Your task to perform on an android device: change text size in settings app Image 0: 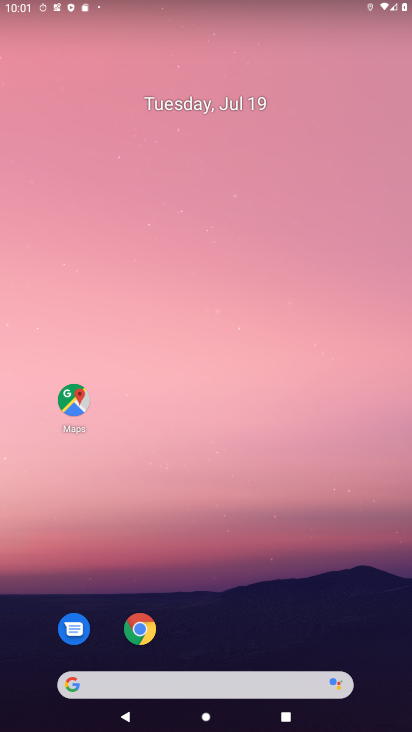
Step 0: drag from (233, 627) to (234, 7)
Your task to perform on an android device: change text size in settings app Image 1: 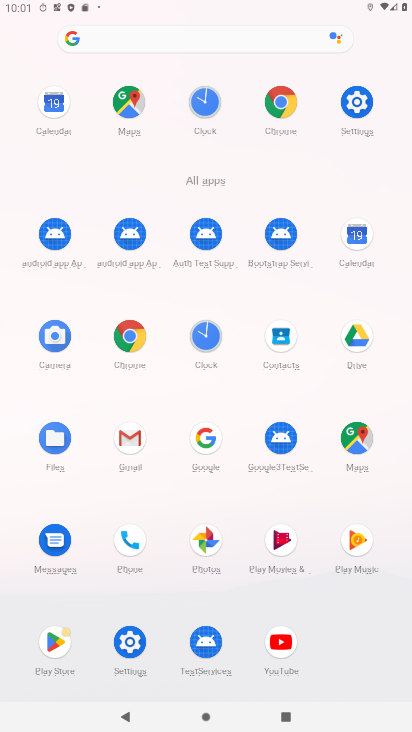
Step 1: click (133, 649)
Your task to perform on an android device: change text size in settings app Image 2: 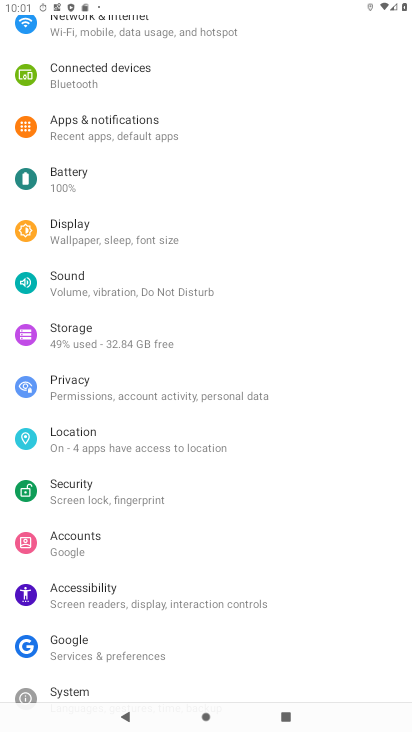
Step 2: click (87, 237)
Your task to perform on an android device: change text size in settings app Image 3: 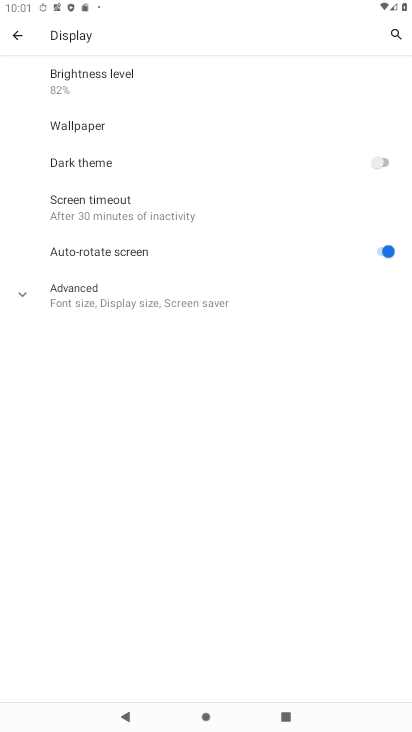
Step 3: click (117, 306)
Your task to perform on an android device: change text size in settings app Image 4: 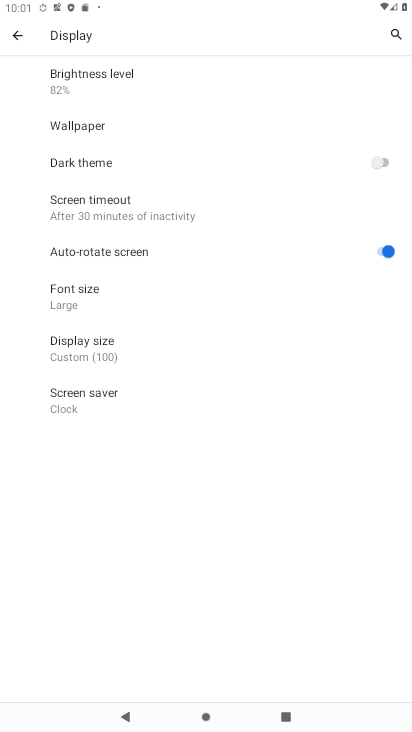
Step 4: click (92, 300)
Your task to perform on an android device: change text size in settings app Image 5: 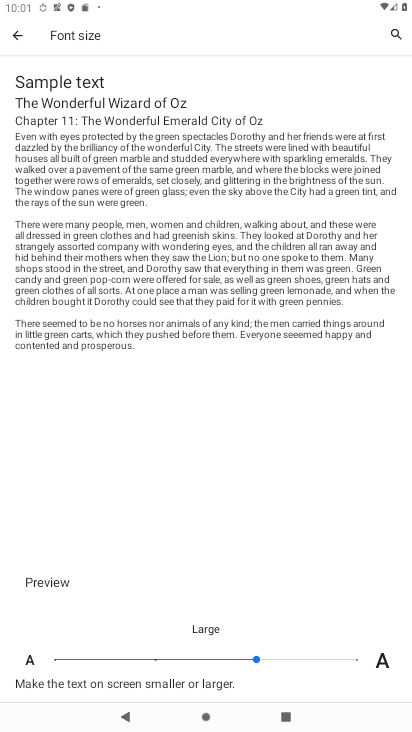
Step 5: click (356, 663)
Your task to perform on an android device: change text size in settings app Image 6: 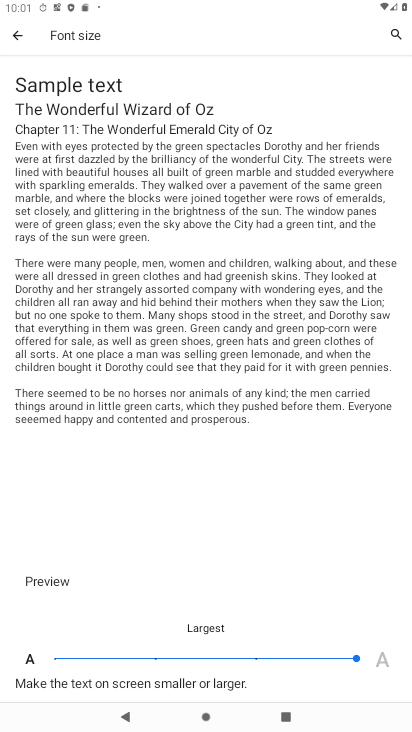
Step 6: task complete